Your task to perform on an android device: Empty the shopping cart on target. Search for "panasonic triple a" on target, select the first entry, and add it to the cart. Image 0: 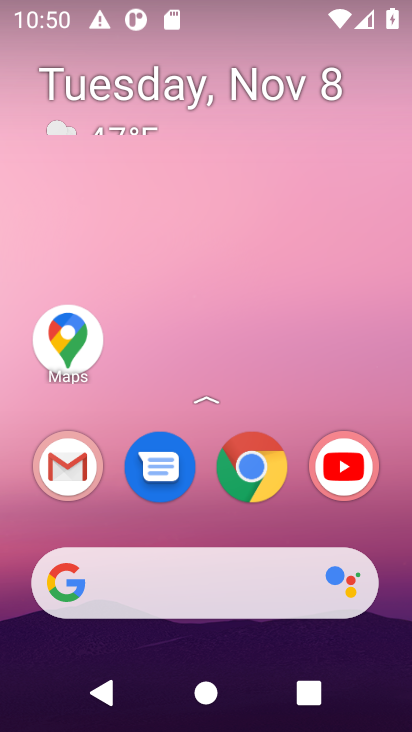
Step 0: click (194, 573)
Your task to perform on an android device: Empty the shopping cart on target. Search for "panasonic triple a" on target, select the first entry, and add it to the cart. Image 1: 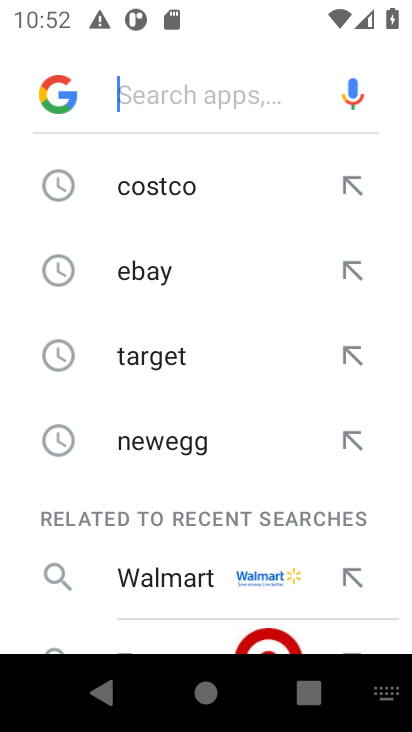
Step 1: click (175, 370)
Your task to perform on an android device: Empty the shopping cart on target. Search for "panasonic triple a" on target, select the first entry, and add it to the cart. Image 2: 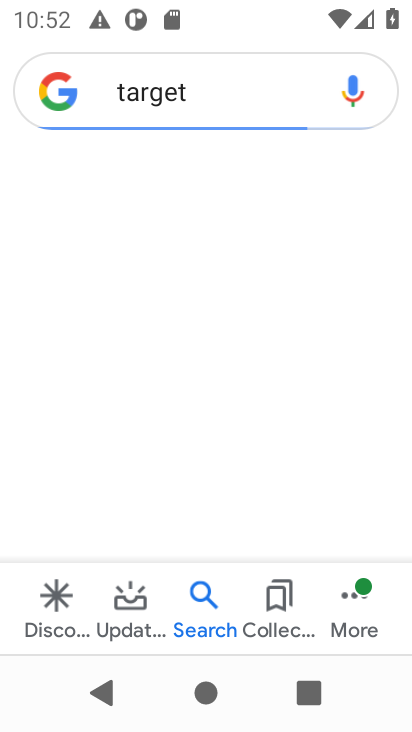
Step 2: task complete